Your task to perform on an android device: snooze an email in the gmail app Image 0: 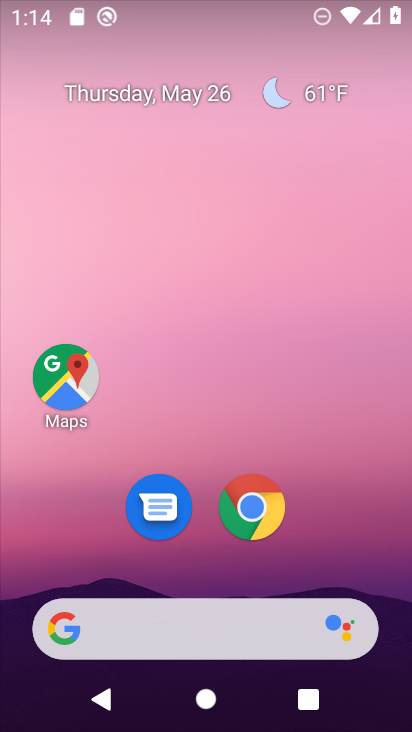
Step 0: drag from (392, 559) to (221, 5)
Your task to perform on an android device: snooze an email in the gmail app Image 1: 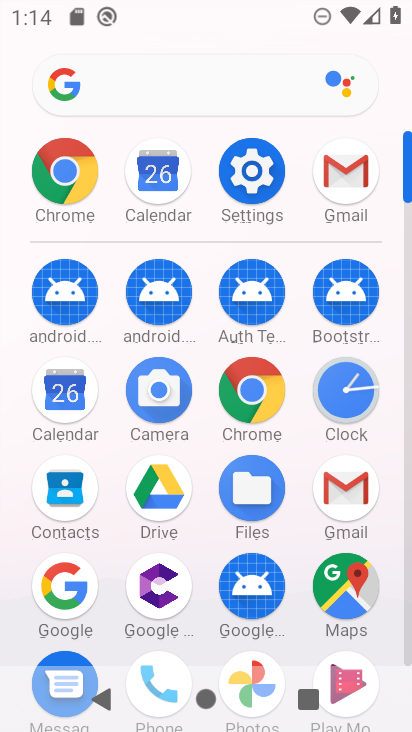
Step 1: click (318, 191)
Your task to perform on an android device: snooze an email in the gmail app Image 2: 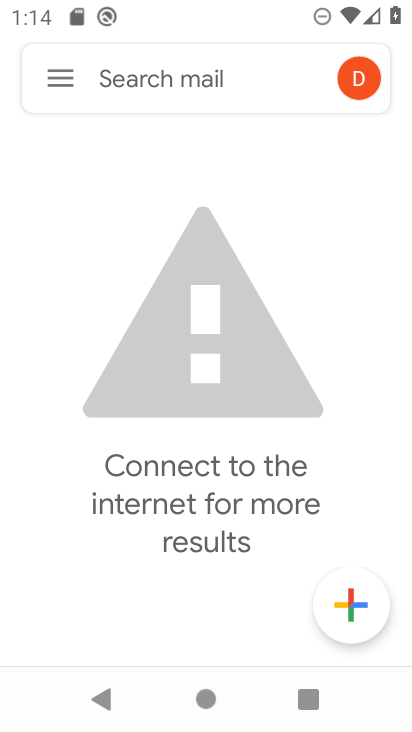
Step 2: click (46, 75)
Your task to perform on an android device: snooze an email in the gmail app Image 3: 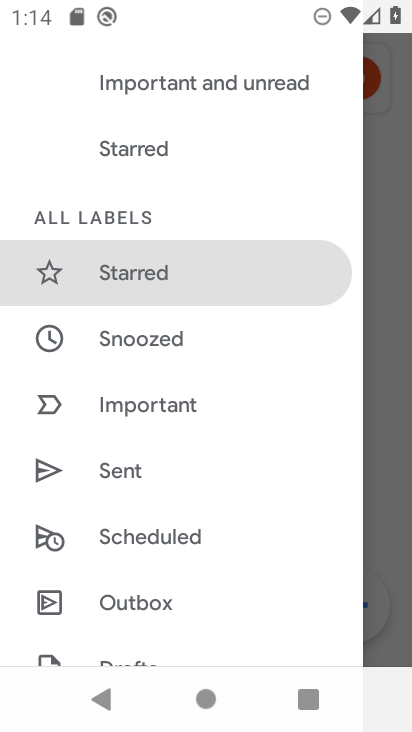
Step 3: drag from (175, 479) to (83, 188)
Your task to perform on an android device: snooze an email in the gmail app Image 4: 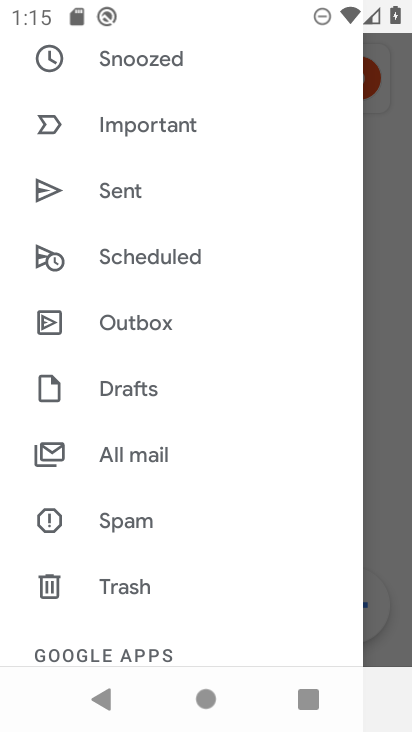
Step 4: click (154, 466)
Your task to perform on an android device: snooze an email in the gmail app Image 5: 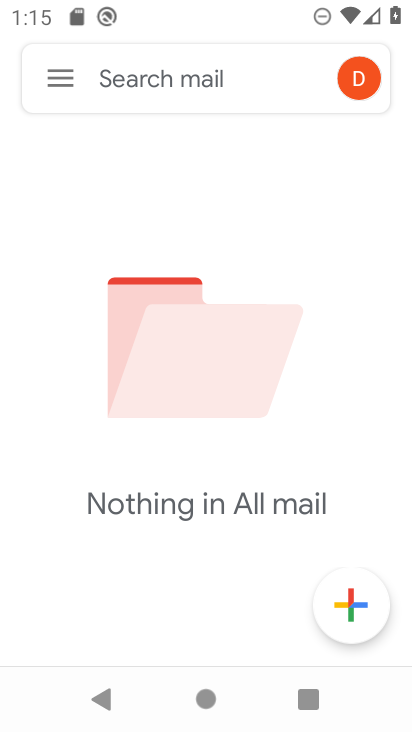
Step 5: task complete